Your task to perform on an android device: Open wifi settings Image 0: 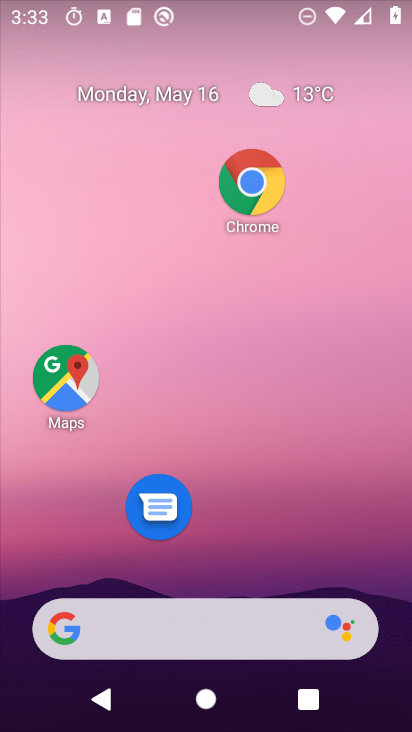
Step 0: click (174, 240)
Your task to perform on an android device: Open wifi settings Image 1: 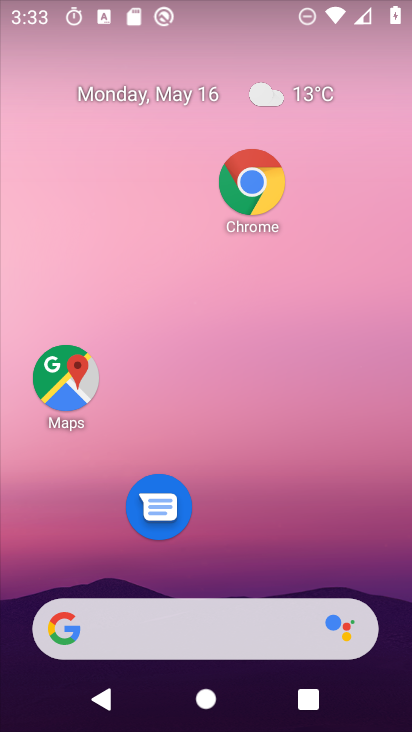
Step 1: drag from (260, 537) to (195, 151)
Your task to perform on an android device: Open wifi settings Image 2: 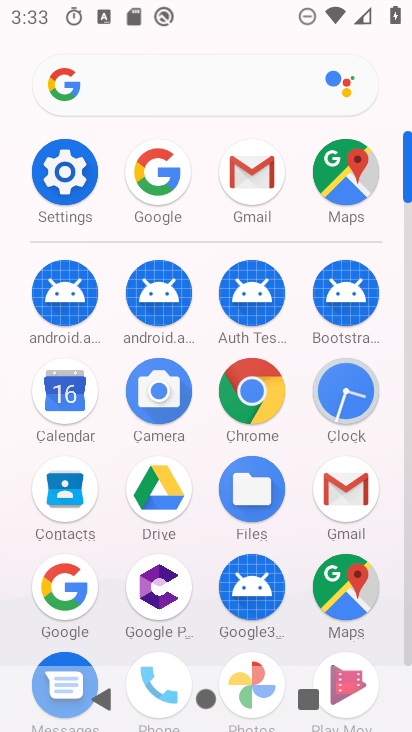
Step 2: click (74, 190)
Your task to perform on an android device: Open wifi settings Image 3: 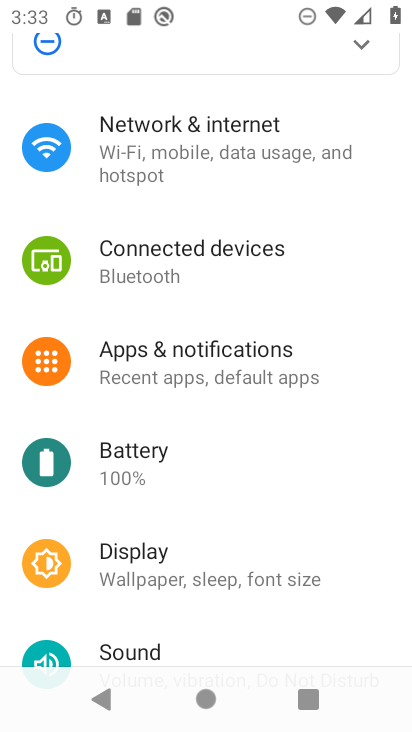
Step 3: click (225, 184)
Your task to perform on an android device: Open wifi settings Image 4: 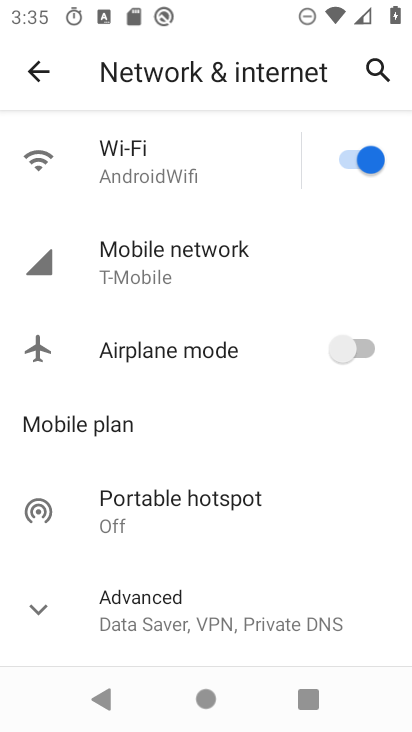
Step 4: click (136, 181)
Your task to perform on an android device: Open wifi settings Image 5: 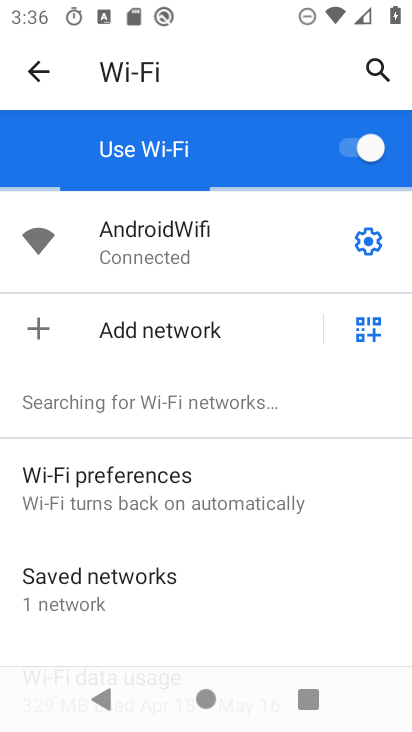
Step 5: task complete